Your task to perform on an android device: Open Google Maps Image 0: 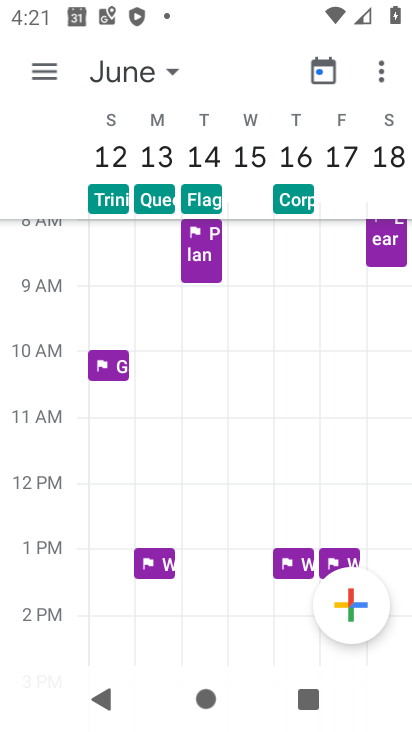
Step 0: press back button
Your task to perform on an android device: Open Google Maps Image 1: 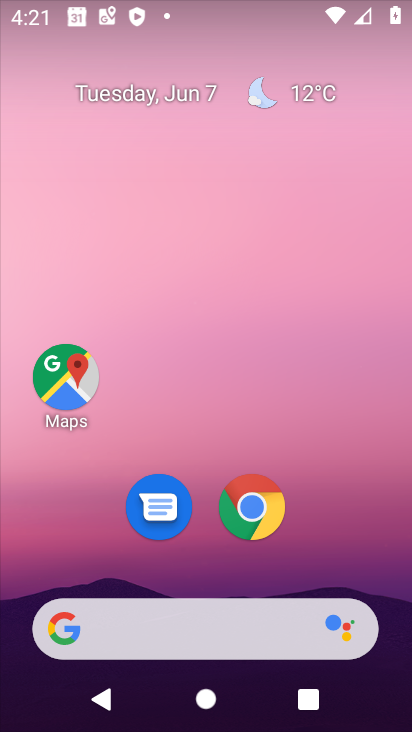
Step 1: drag from (363, 586) to (307, 77)
Your task to perform on an android device: Open Google Maps Image 2: 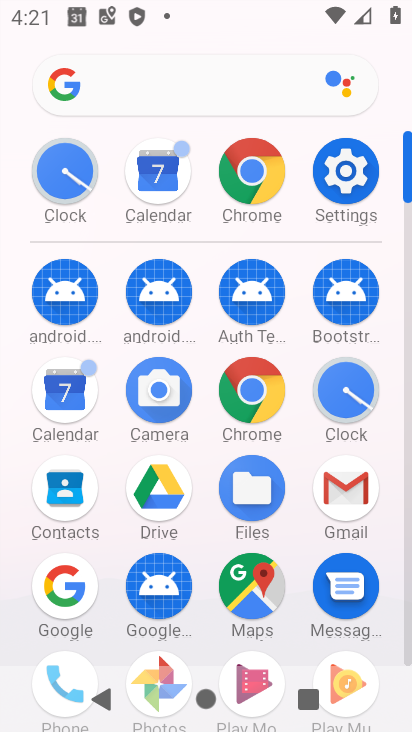
Step 2: click (249, 581)
Your task to perform on an android device: Open Google Maps Image 3: 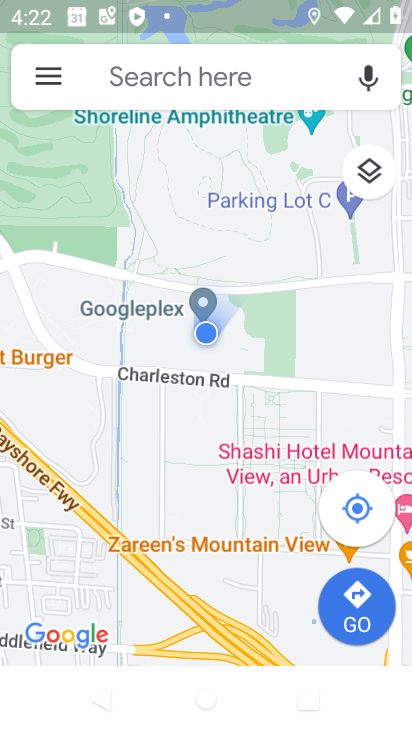
Step 3: task complete